Your task to perform on an android device: Open calendar and show me the third week of next month Image 0: 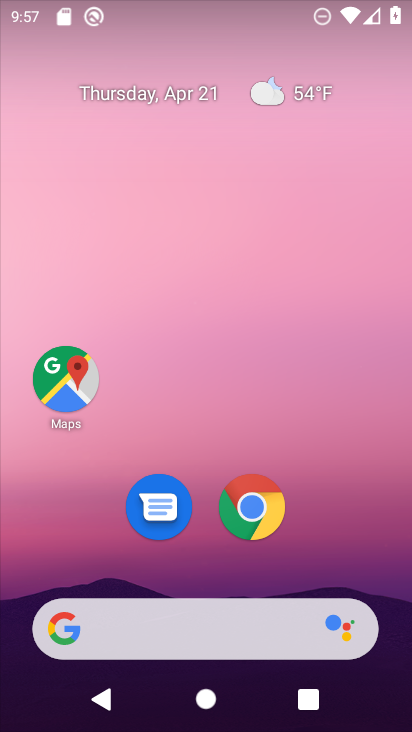
Step 0: drag from (221, 459) to (223, 138)
Your task to perform on an android device: Open calendar and show me the third week of next month Image 1: 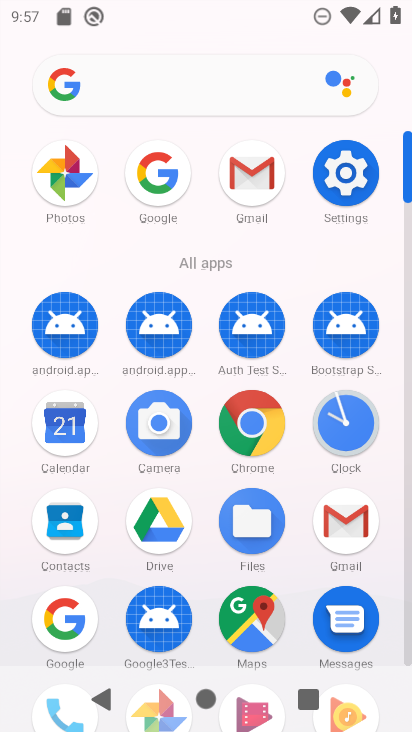
Step 1: click (49, 435)
Your task to perform on an android device: Open calendar and show me the third week of next month Image 2: 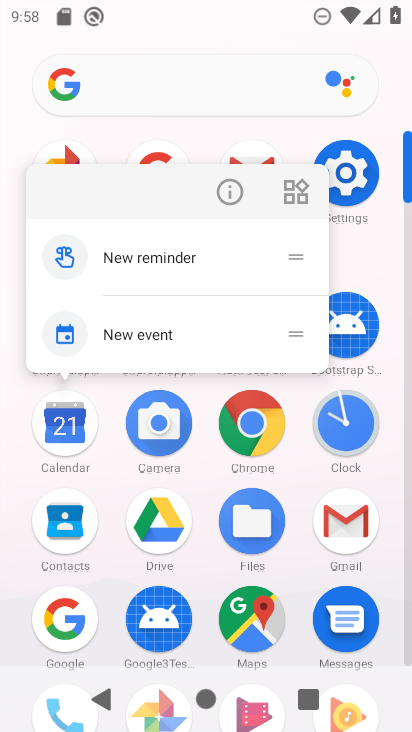
Step 2: click (63, 432)
Your task to perform on an android device: Open calendar and show me the third week of next month Image 3: 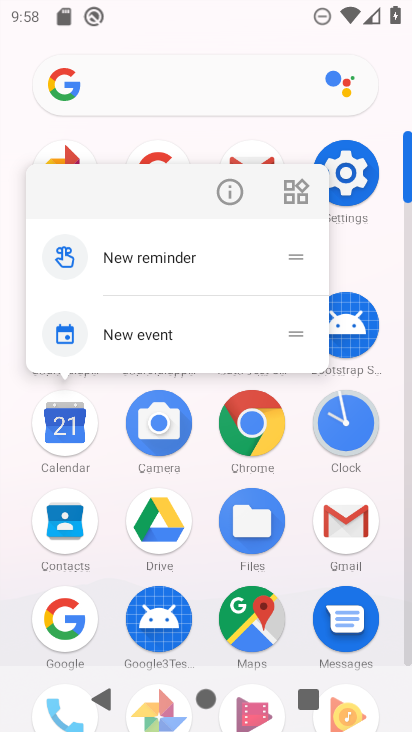
Step 3: click (63, 430)
Your task to perform on an android device: Open calendar and show me the third week of next month Image 4: 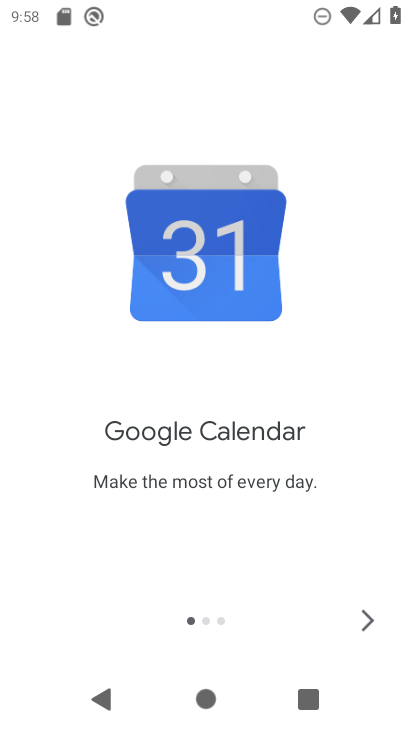
Step 4: click (365, 621)
Your task to perform on an android device: Open calendar and show me the third week of next month Image 5: 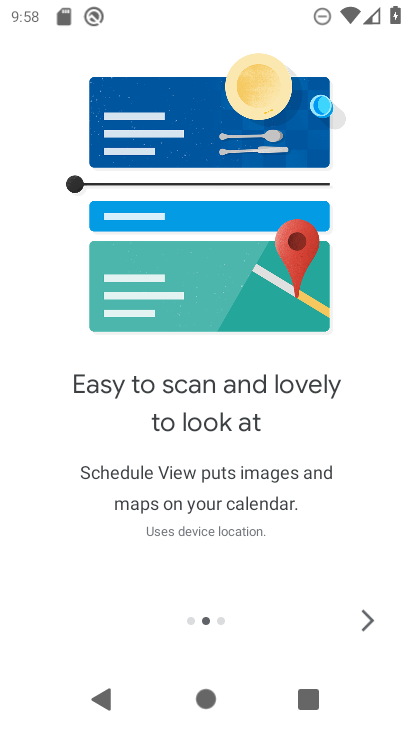
Step 5: click (365, 621)
Your task to perform on an android device: Open calendar and show me the third week of next month Image 6: 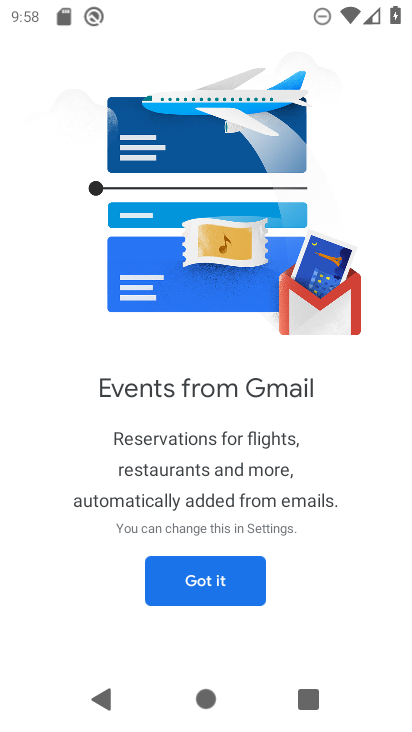
Step 6: click (181, 593)
Your task to perform on an android device: Open calendar and show me the third week of next month Image 7: 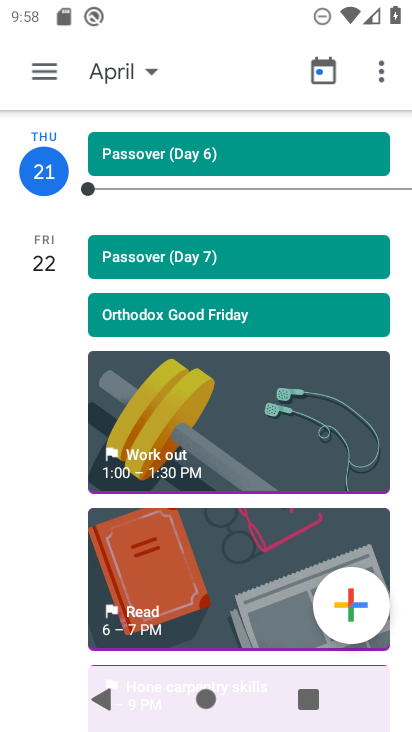
Step 7: click (127, 70)
Your task to perform on an android device: Open calendar and show me the third week of next month Image 8: 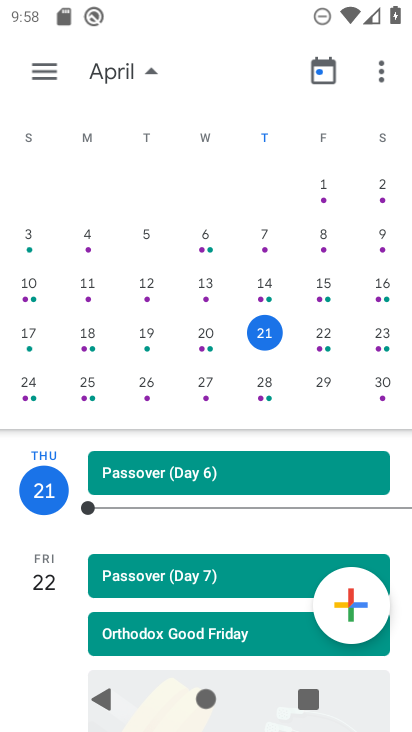
Step 8: drag from (51, 366) to (4, 388)
Your task to perform on an android device: Open calendar and show me the third week of next month Image 9: 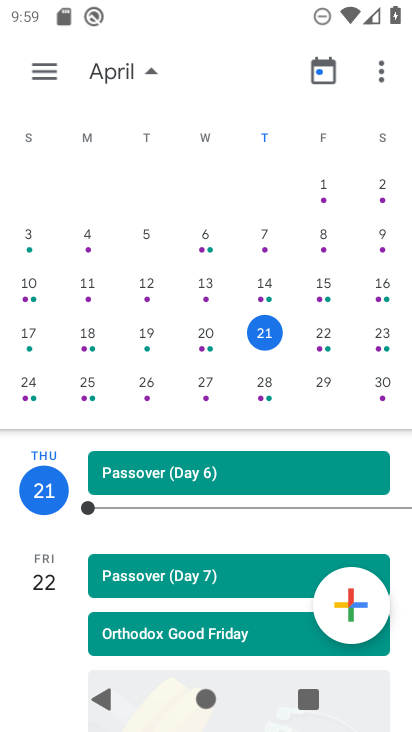
Step 9: drag from (393, 351) to (9, 438)
Your task to perform on an android device: Open calendar and show me the third week of next month Image 10: 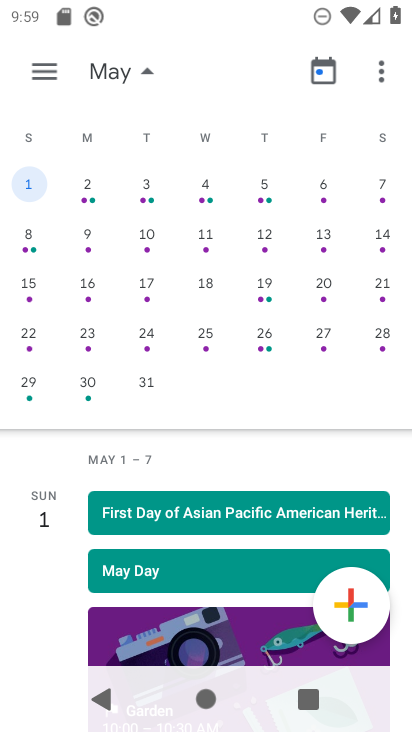
Step 10: click (30, 281)
Your task to perform on an android device: Open calendar and show me the third week of next month Image 11: 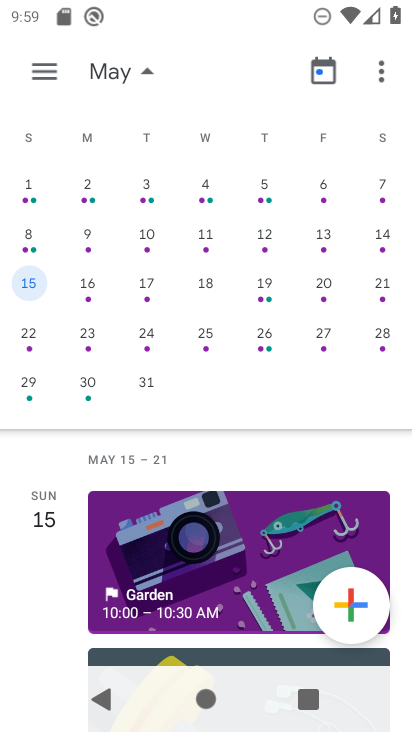
Step 11: task complete